Your task to perform on an android device: check the backup settings in the google photos Image 0: 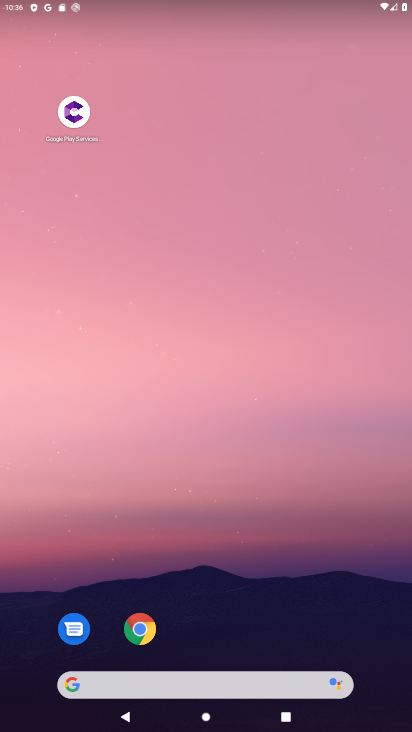
Step 0: drag from (176, 663) to (174, 275)
Your task to perform on an android device: check the backup settings in the google photos Image 1: 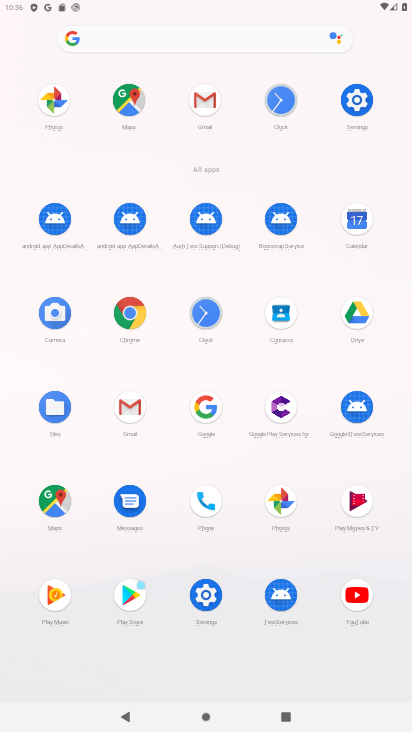
Step 1: click (274, 507)
Your task to perform on an android device: check the backup settings in the google photos Image 2: 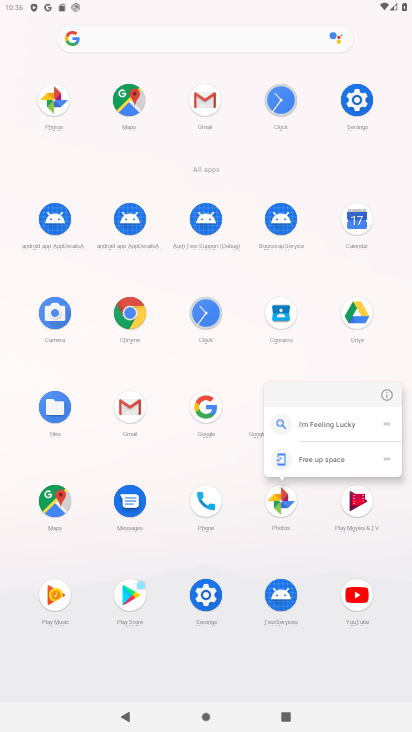
Step 2: click (279, 509)
Your task to perform on an android device: check the backup settings in the google photos Image 3: 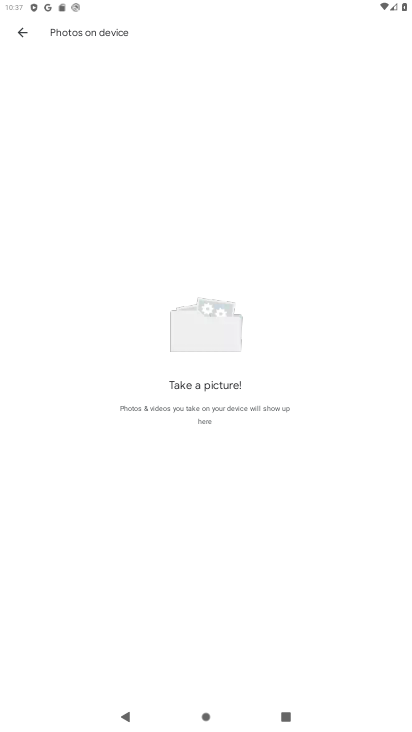
Step 3: click (19, 29)
Your task to perform on an android device: check the backup settings in the google photos Image 4: 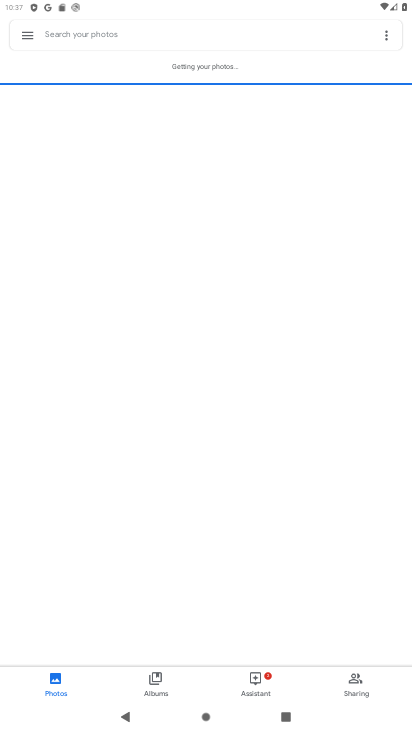
Step 4: click (27, 34)
Your task to perform on an android device: check the backup settings in the google photos Image 5: 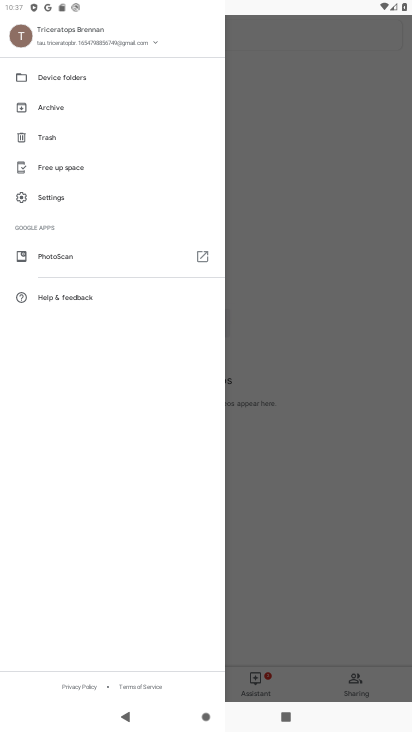
Step 5: click (39, 190)
Your task to perform on an android device: check the backup settings in the google photos Image 6: 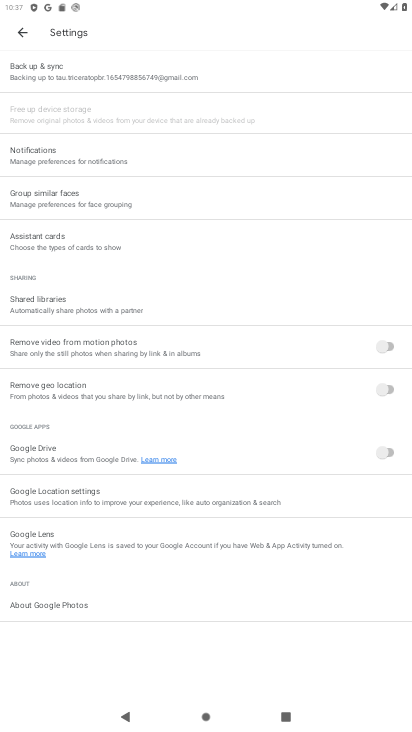
Step 6: click (52, 77)
Your task to perform on an android device: check the backup settings in the google photos Image 7: 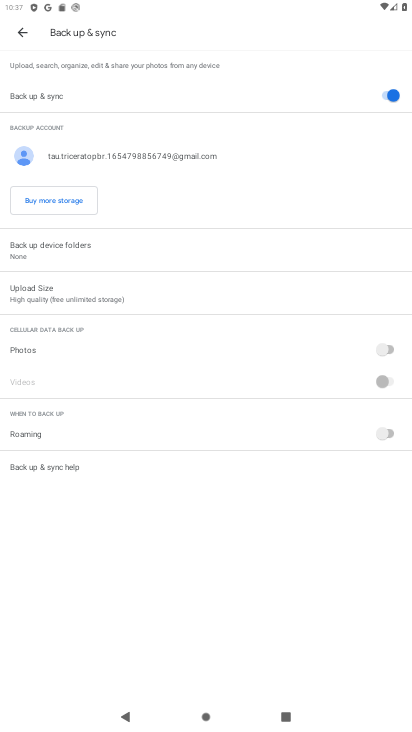
Step 7: task complete